Your task to perform on an android device: Search for runner rugs on Crate & Barrel Image 0: 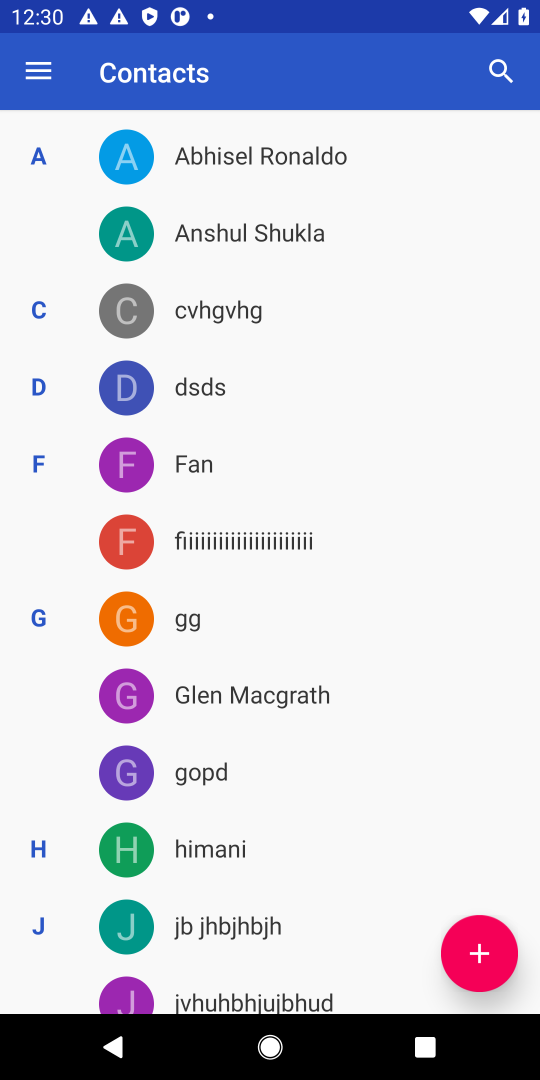
Step 0: press home button
Your task to perform on an android device: Search for runner rugs on Crate & Barrel Image 1: 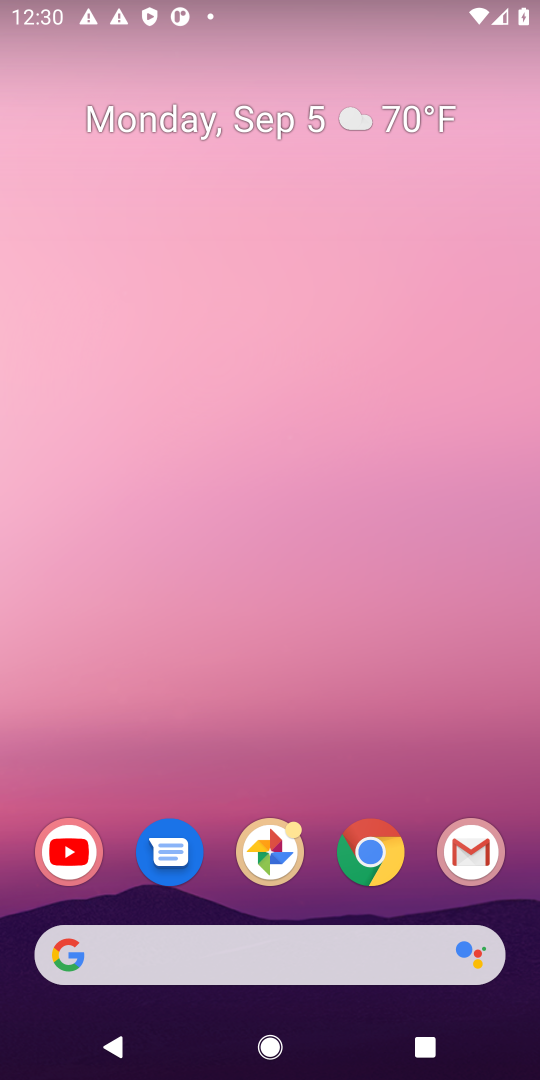
Step 1: click (368, 855)
Your task to perform on an android device: Search for runner rugs on Crate & Barrel Image 2: 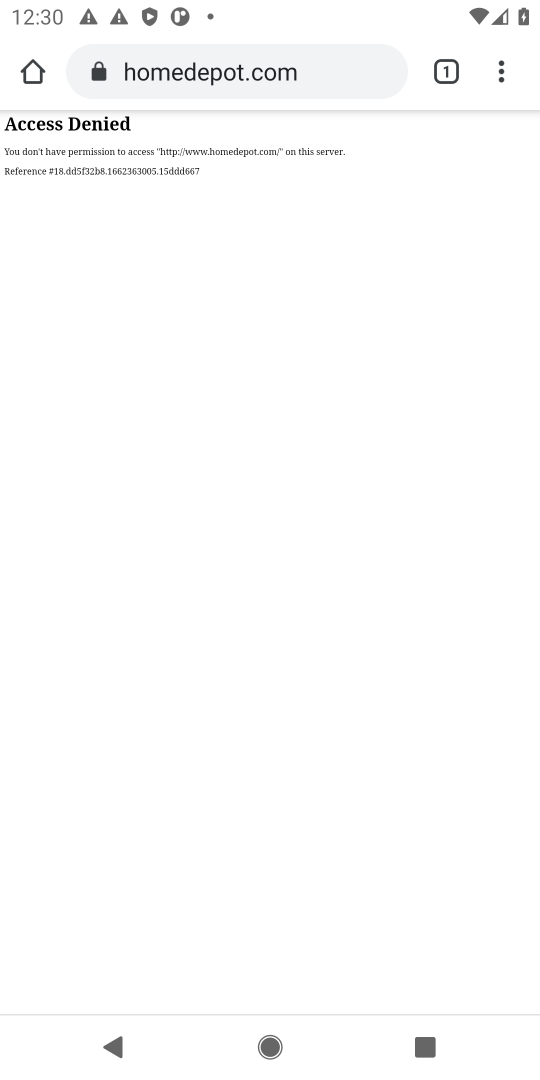
Step 2: click (341, 70)
Your task to perform on an android device: Search for runner rugs on Crate & Barrel Image 3: 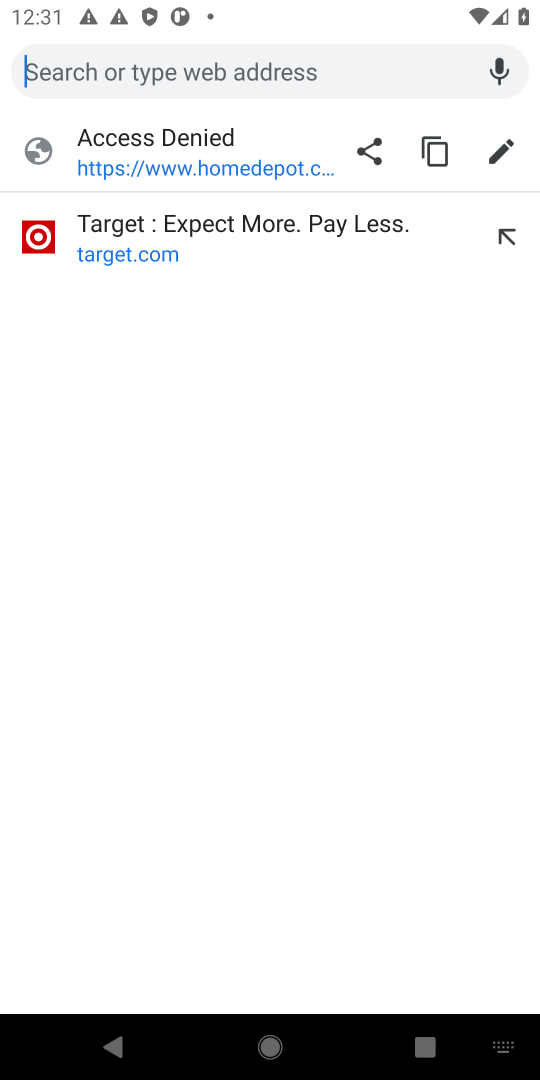
Step 3: type "Crate & Barrel"
Your task to perform on an android device: Search for runner rugs on Crate & Barrel Image 4: 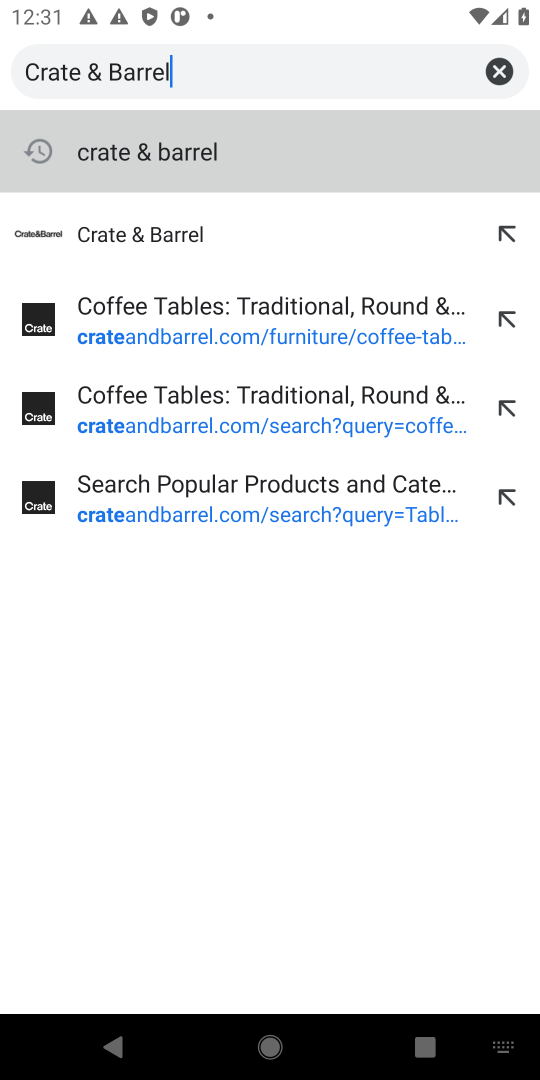
Step 4: click (116, 239)
Your task to perform on an android device: Search for runner rugs on Crate & Barrel Image 5: 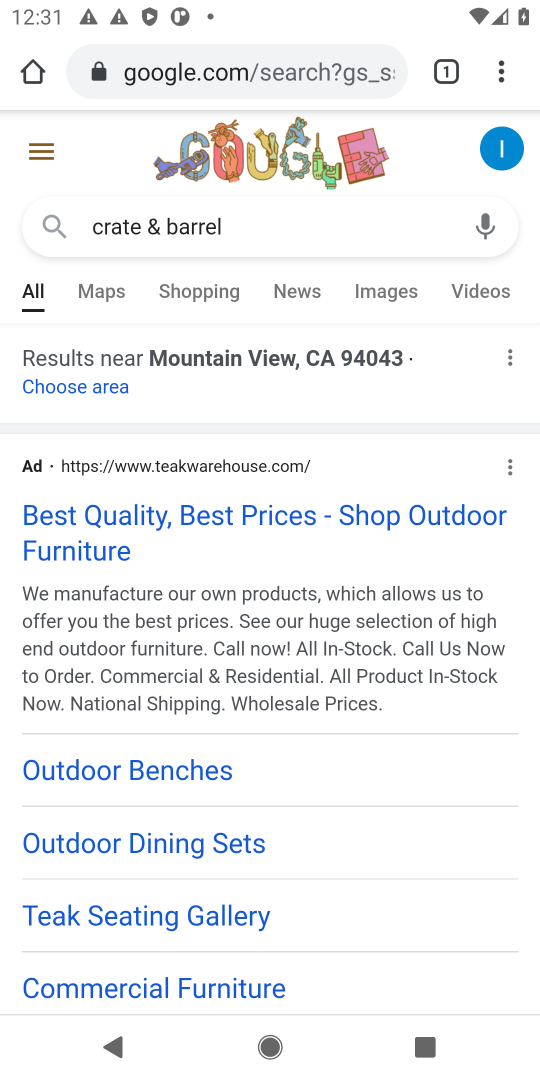
Step 5: drag from (334, 991) to (335, 353)
Your task to perform on an android device: Search for runner rugs on Crate & Barrel Image 6: 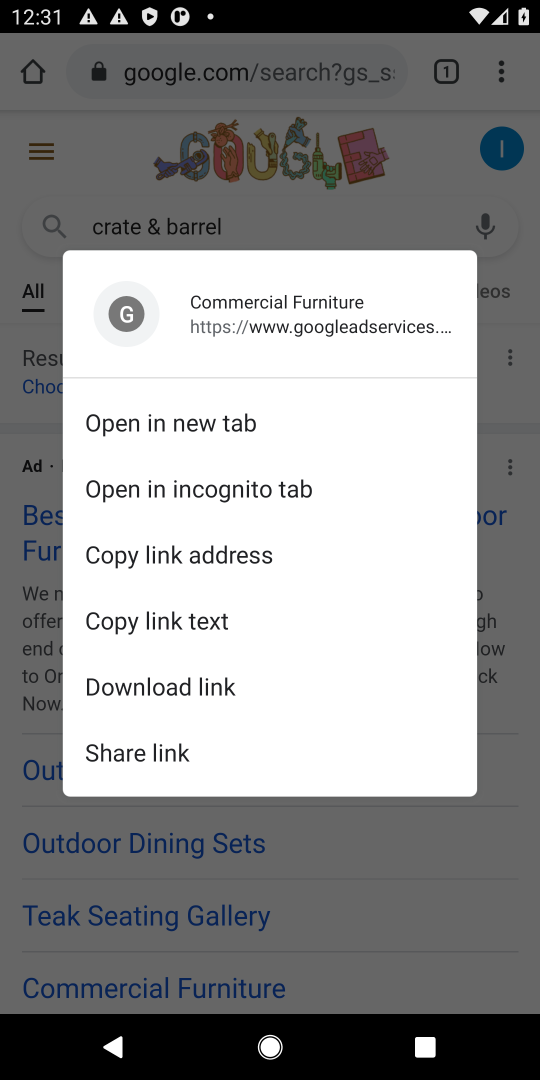
Step 6: click (360, 964)
Your task to perform on an android device: Search for runner rugs on Crate & Barrel Image 7: 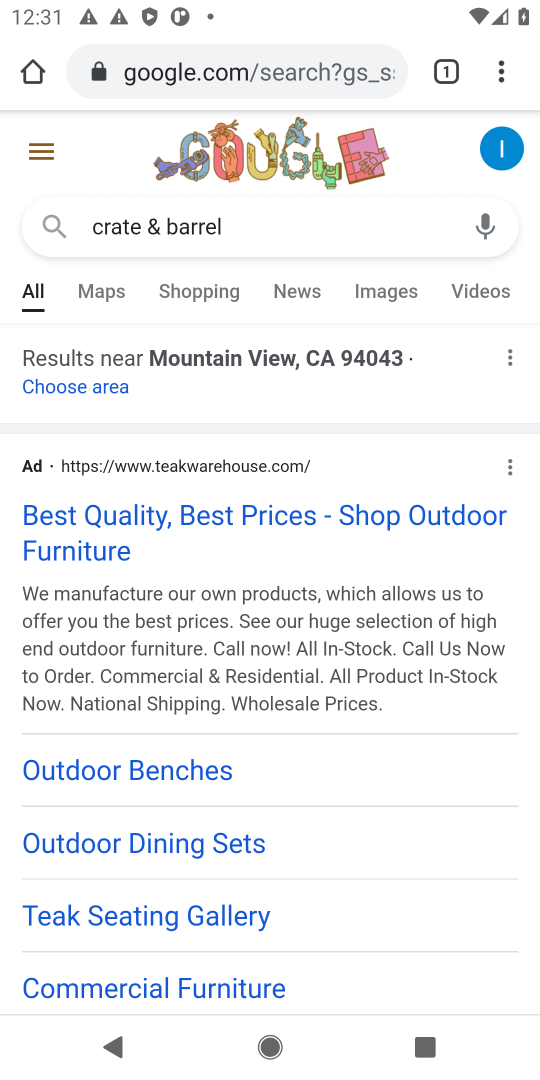
Step 7: drag from (401, 967) to (424, 603)
Your task to perform on an android device: Search for runner rugs on Crate & Barrel Image 8: 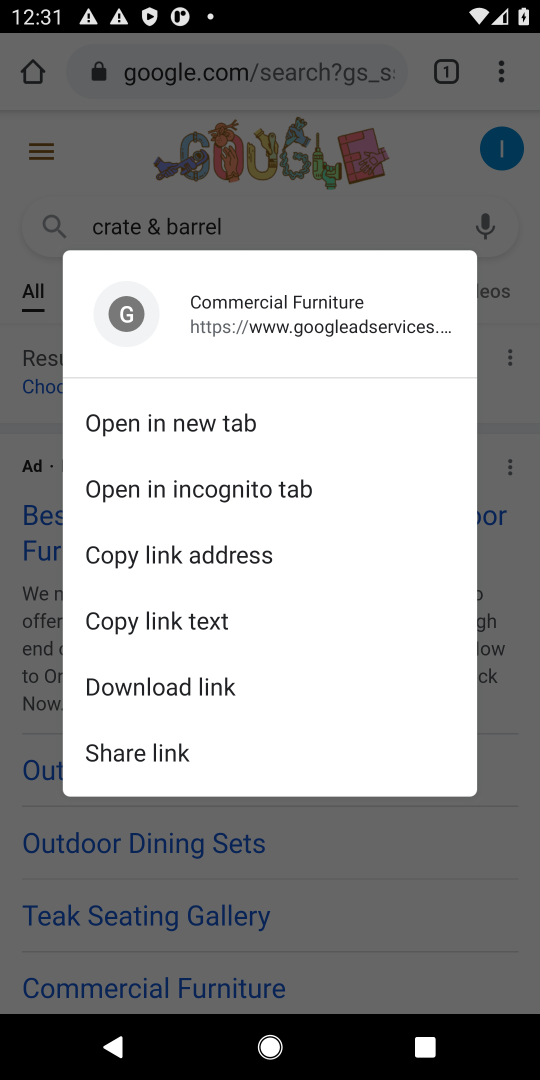
Step 8: click (403, 976)
Your task to perform on an android device: Search for runner rugs on Crate & Barrel Image 9: 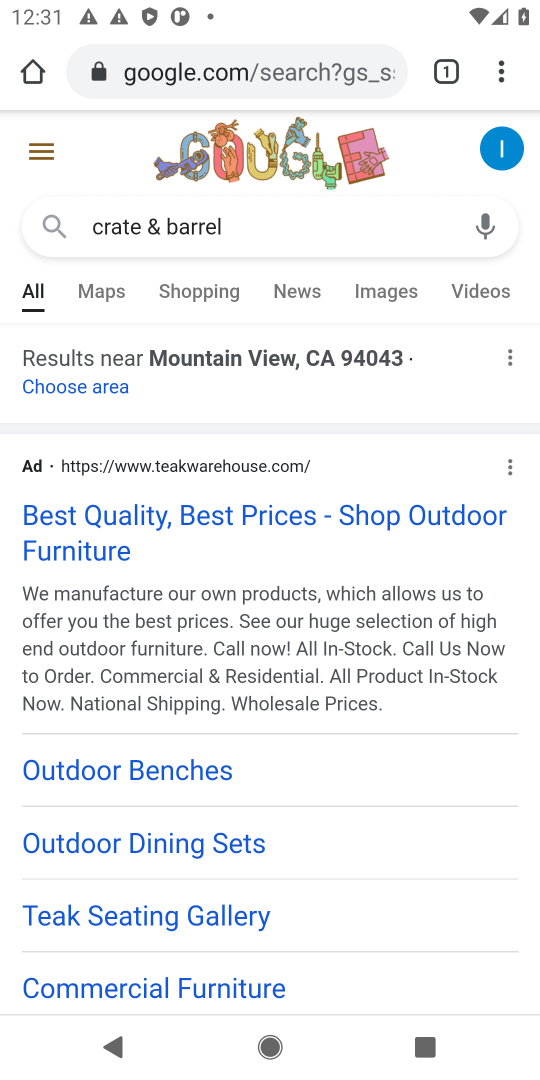
Step 9: drag from (525, 767) to (484, 375)
Your task to perform on an android device: Search for runner rugs on Crate & Barrel Image 10: 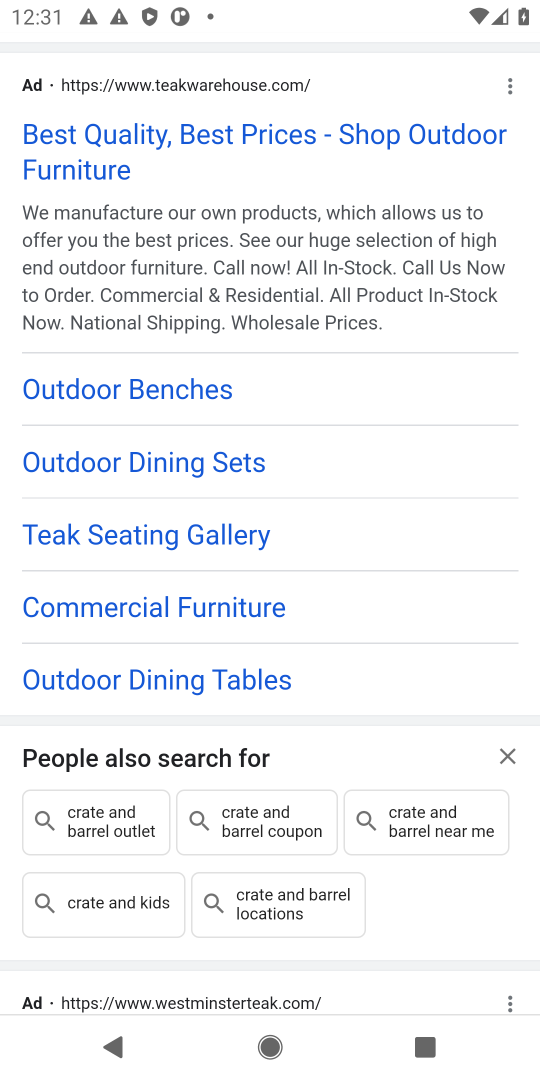
Step 10: drag from (497, 972) to (490, 225)
Your task to perform on an android device: Search for runner rugs on Crate & Barrel Image 11: 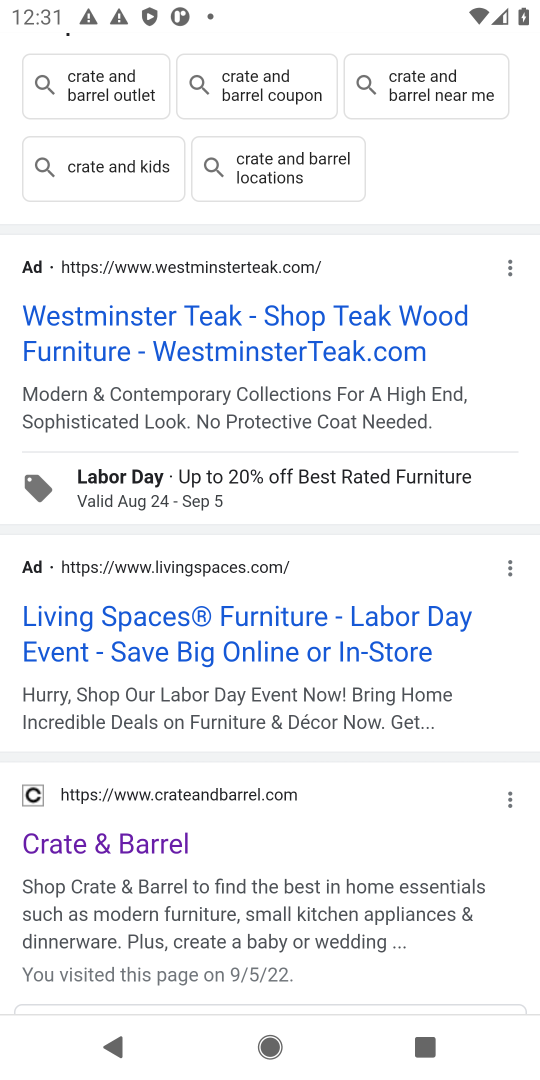
Step 11: click (100, 852)
Your task to perform on an android device: Search for runner rugs on Crate & Barrel Image 12: 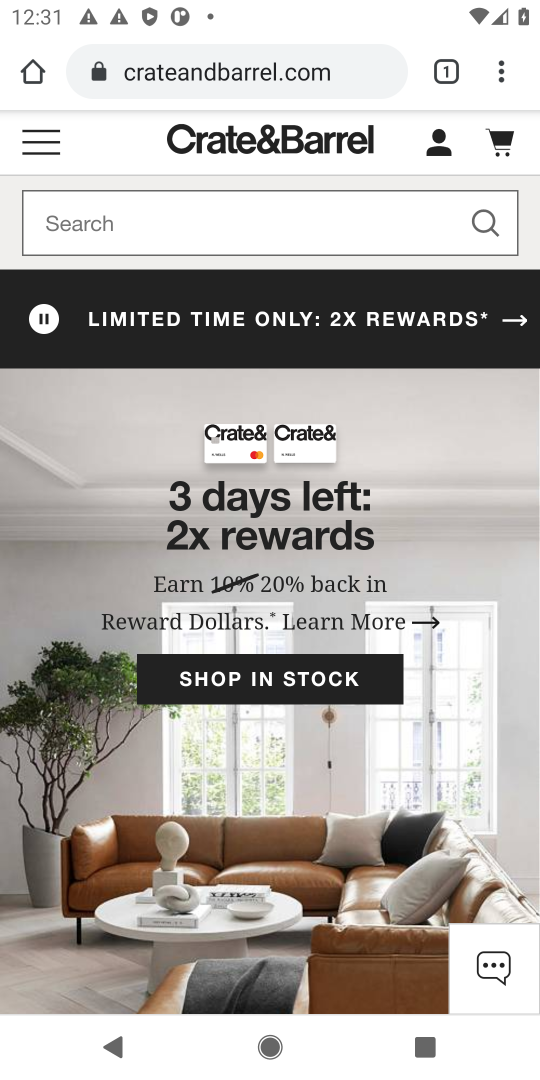
Step 12: click (109, 219)
Your task to perform on an android device: Search for runner rugs on Crate & Barrel Image 13: 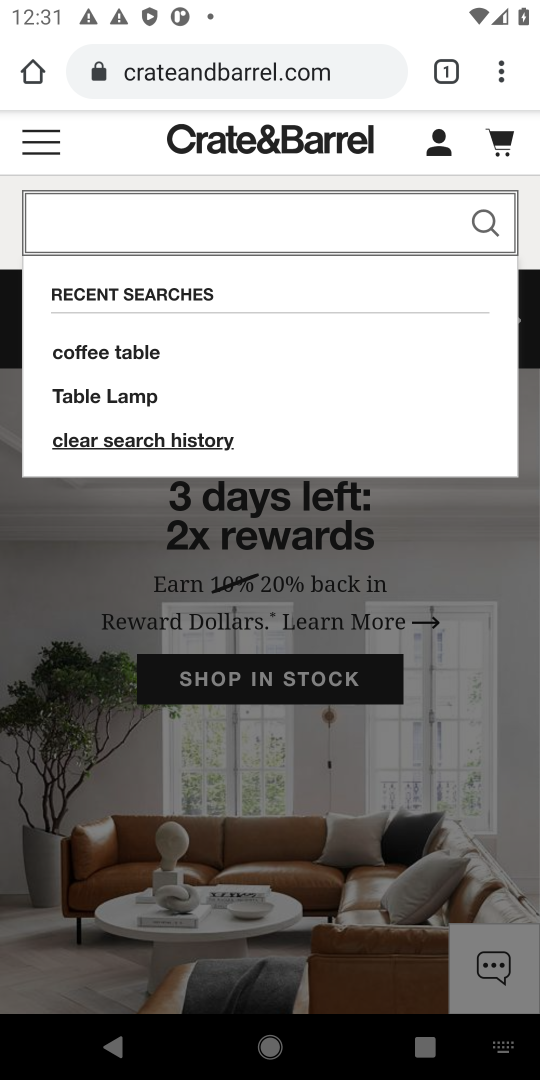
Step 13: type "runner rugs"
Your task to perform on an android device: Search for runner rugs on Crate & Barrel Image 14: 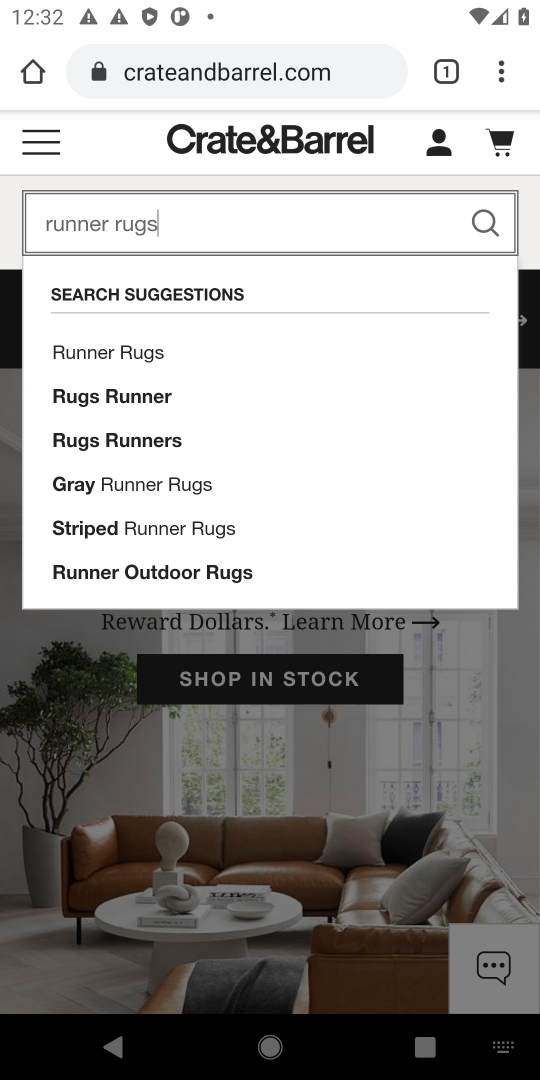
Step 14: click (483, 219)
Your task to perform on an android device: Search for runner rugs on Crate & Barrel Image 15: 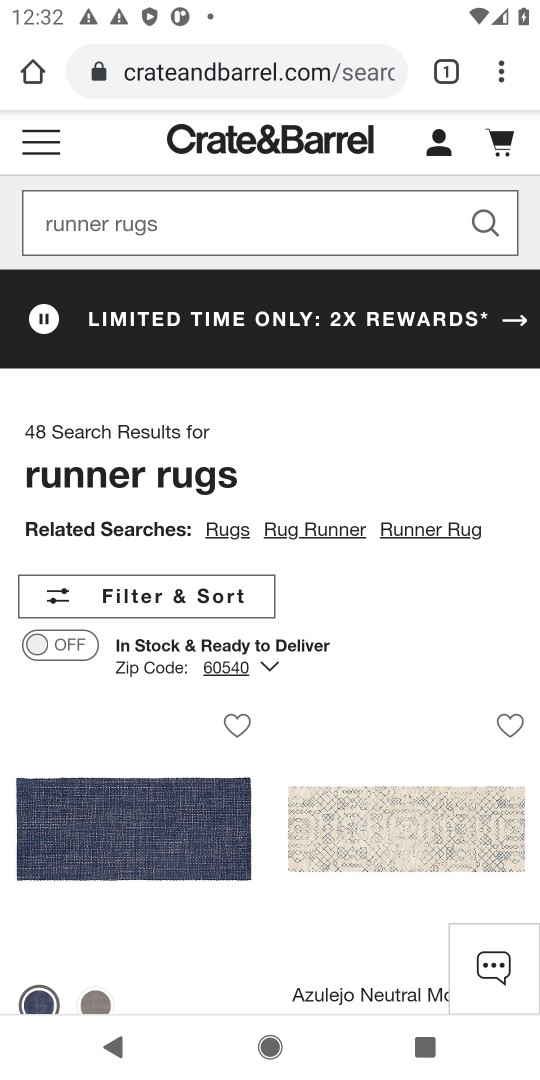
Step 15: drag from (276, 757) to (285, 212)
Your task to perform on an android device: Search for runner rugs on Crate & Barrel Image 16: 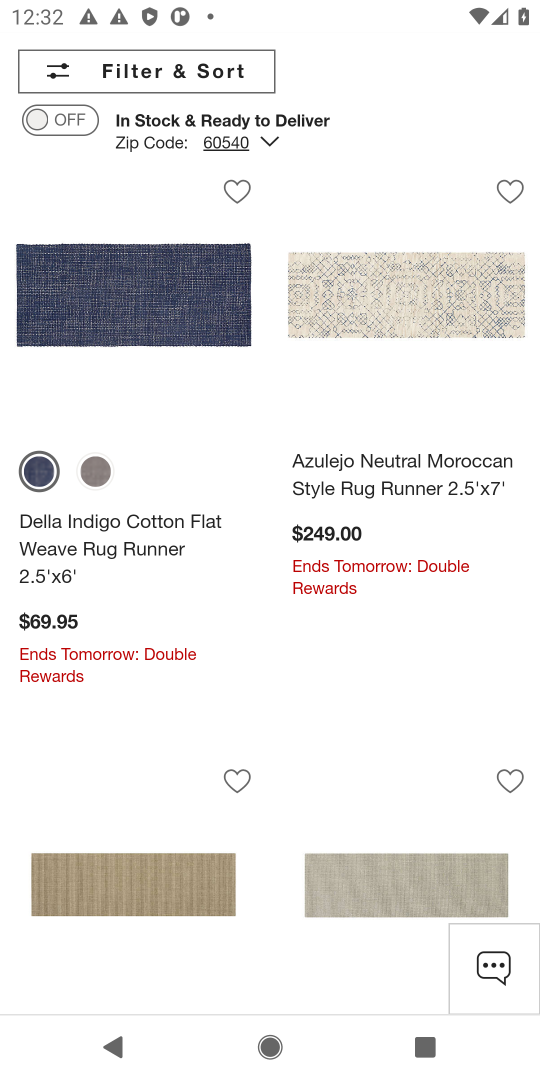
Step 16: drag from (279, 851) to (279, 515)
Your task to perform on an android device: Search for runner rugs on Crate & Barrel Image 17: 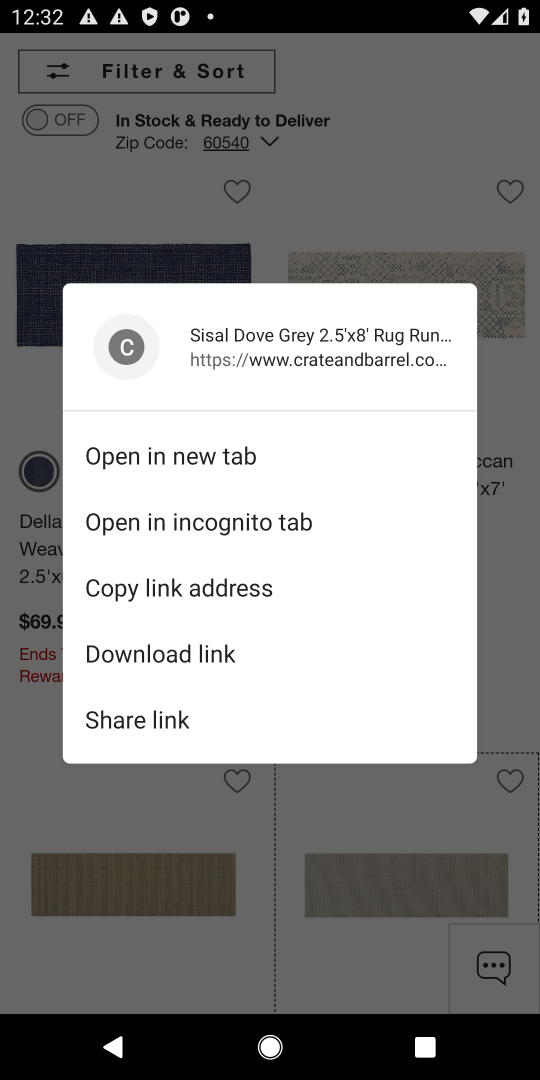
Step 17: click (273, 929)
Your task to perform on an android device: Search for runner rugs on Crate & Barrel Image 18: 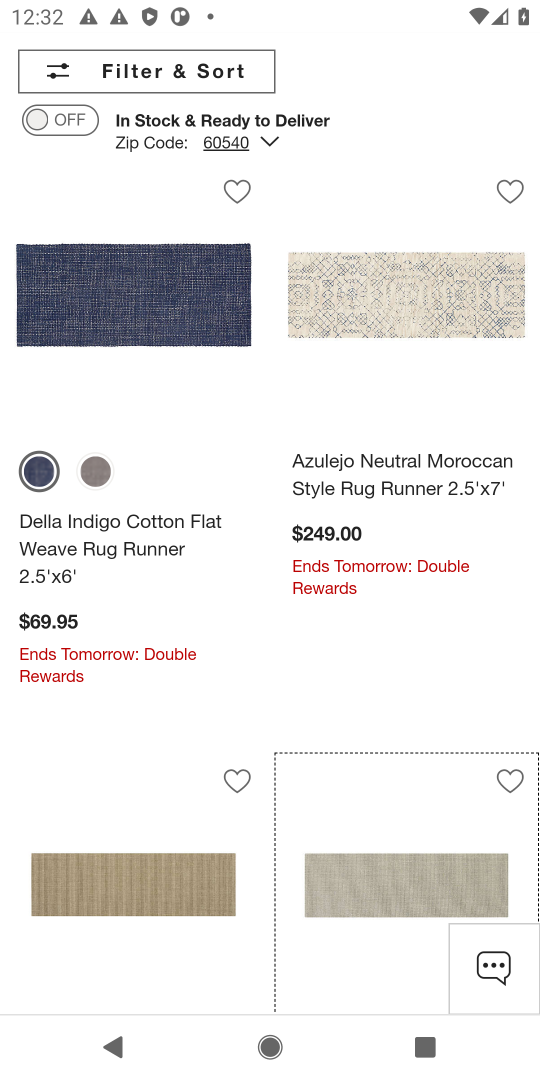
Step 18: task complete